Your task to perform on an android device: Google the capital of Mexico Image 0: 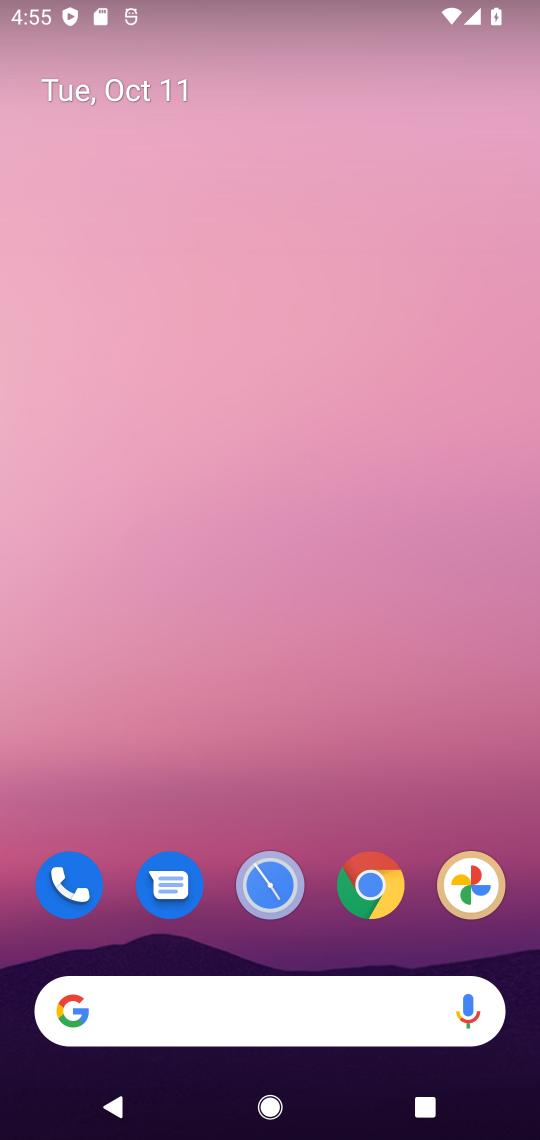
Step 0: click (365, 893)
Your task to perform on an android device: Google the capital of Mexico Image 1: 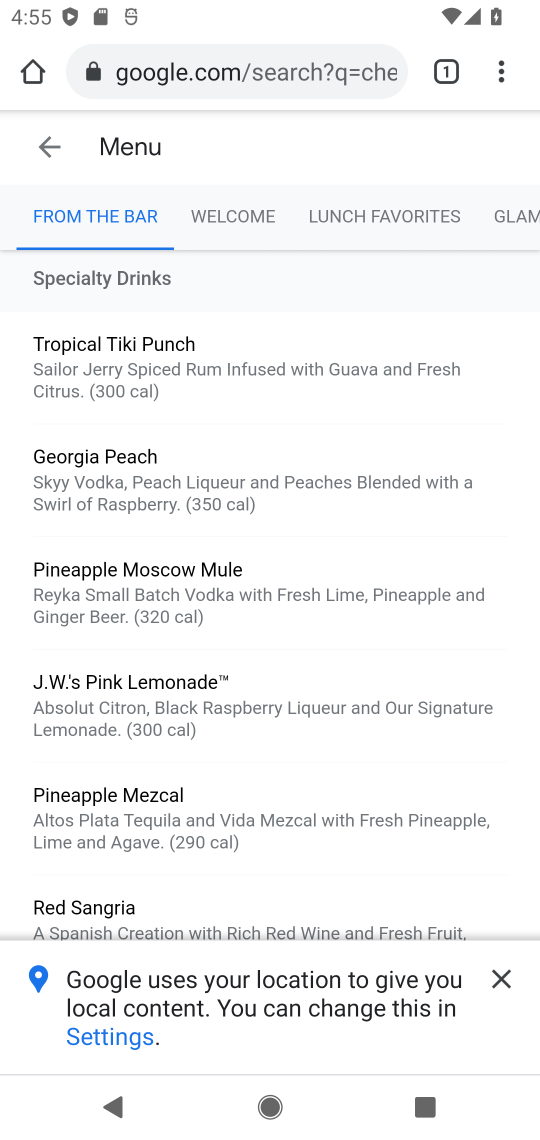
Step 1: click (273, 59)
Your task to perform on an android device: Google the capital of Mexico Image 2: 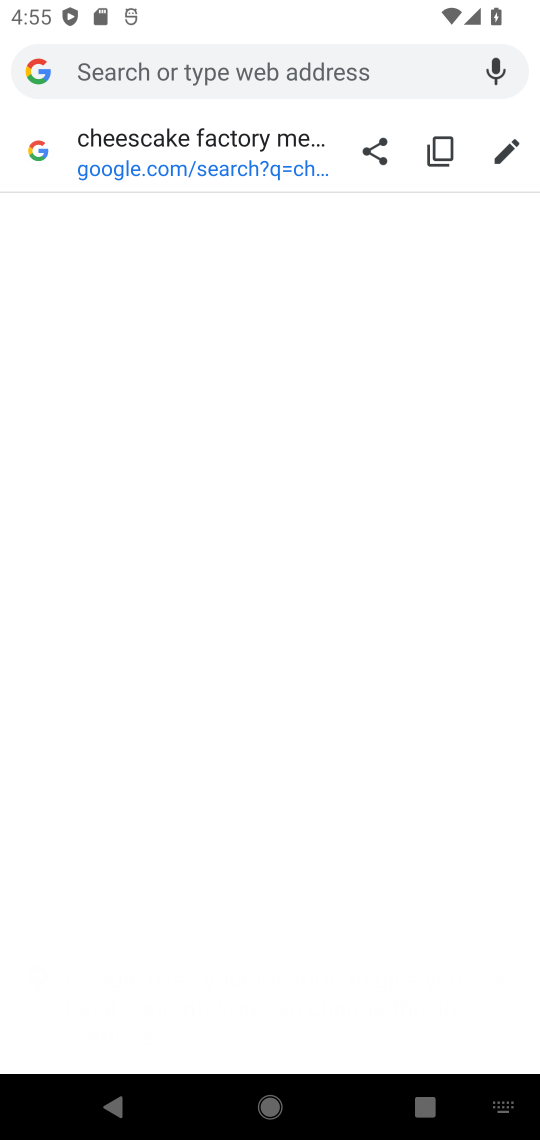
Step 2: type "capital of mexico"
Your task to perform on an android device: Google the capital of Mexico Image 3: 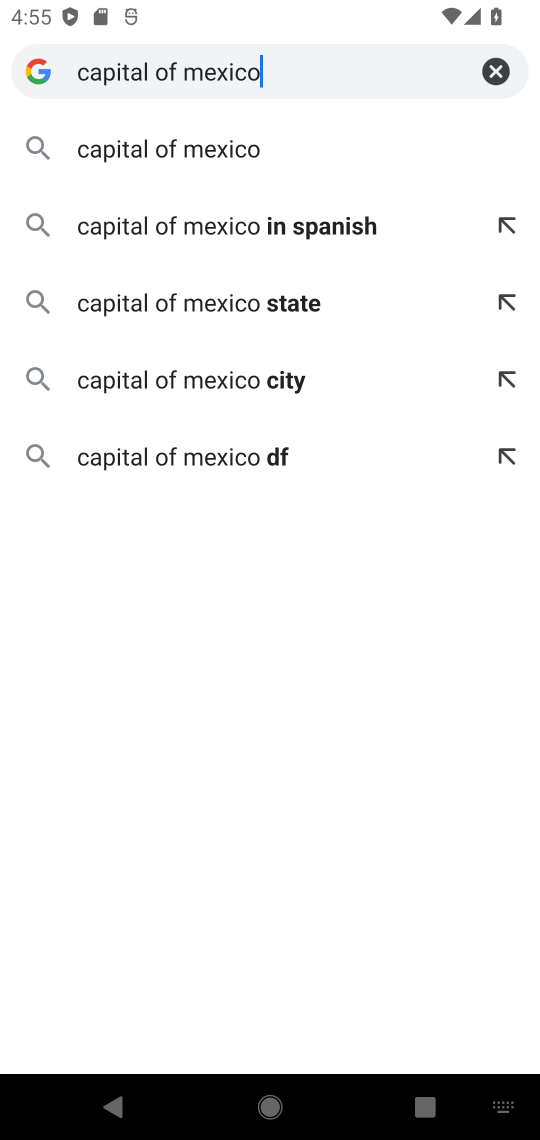
Step 3: click (247, 156)
Your task to perform on an android device: Google the capital of Mexico Image 4: 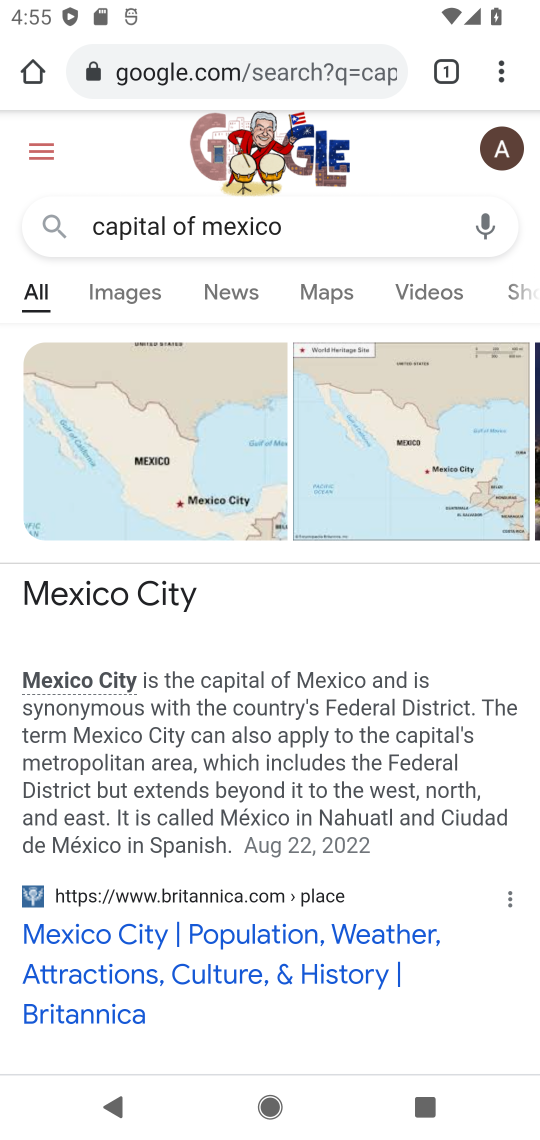
Step 4: task complete